Your task to perform on an android device: move an email to a new category in the gmail app Image 0: 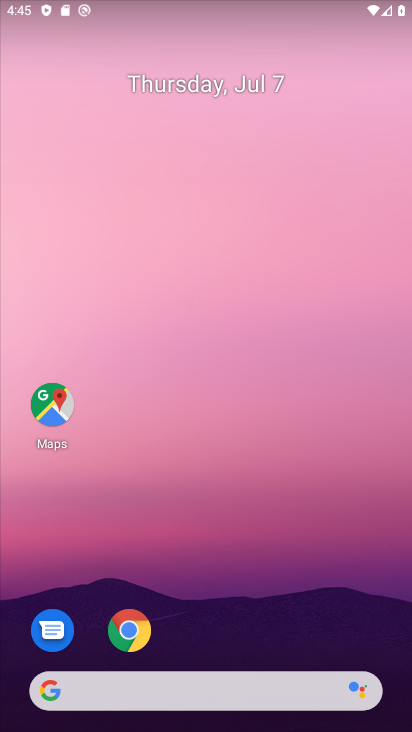
Step 0: drag from (258, 637) to (215, 221)
Your task to perform on an android device: move an email to a new category in the gmail app Image 1: 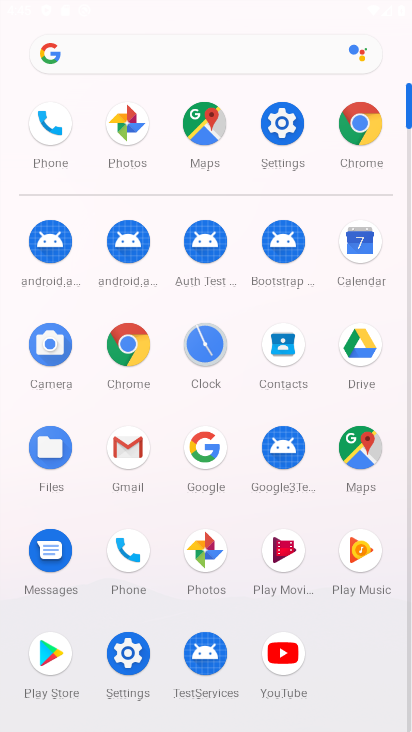
Step 1: click (119, 447)
Your task to perform on an android device: move an email to a new category in the gmail app Image 2: 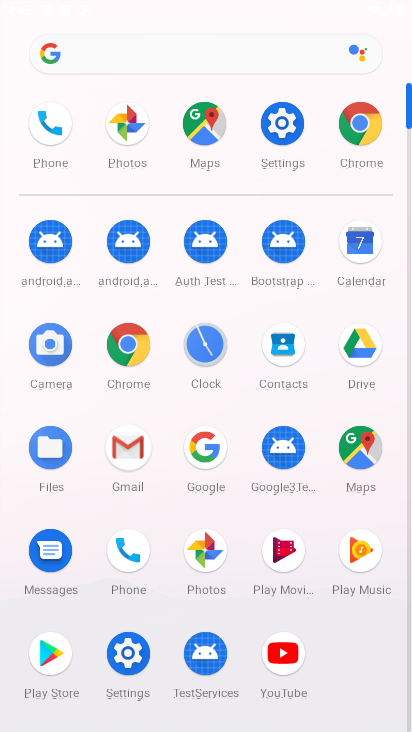
Step 2: click (131, 440)
Your task to perform on an android device: move an email to a new category in the gmail app Image 3: 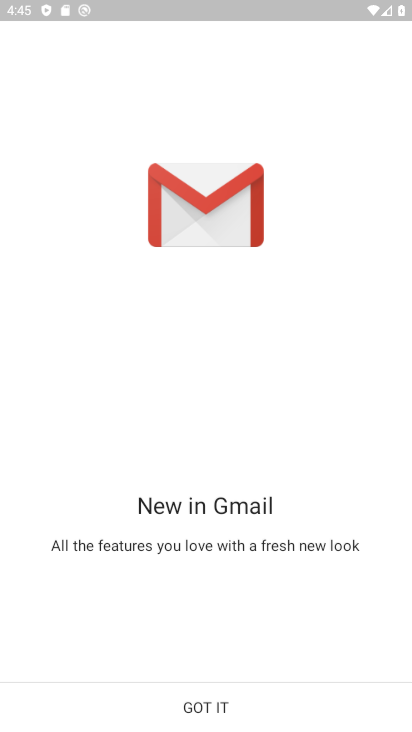
Step 3: click (131, 440)
Your task to perform on an android device: move an email to a new category in the gmail app Image 4: 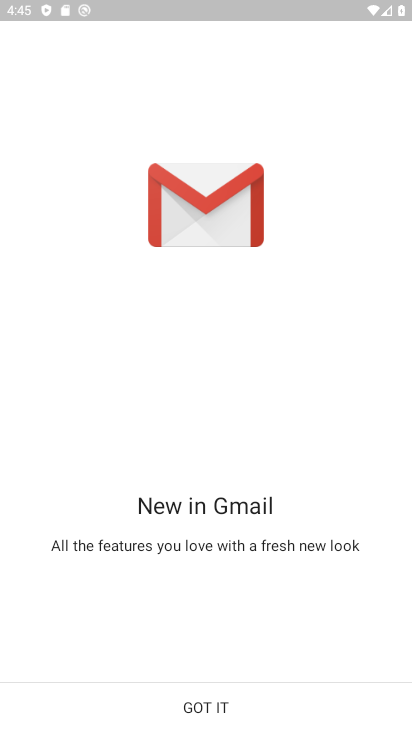
Step 4: click (132, 440)
Your task to perform on an android device: move an email to a new category in the gmail app Image 5: 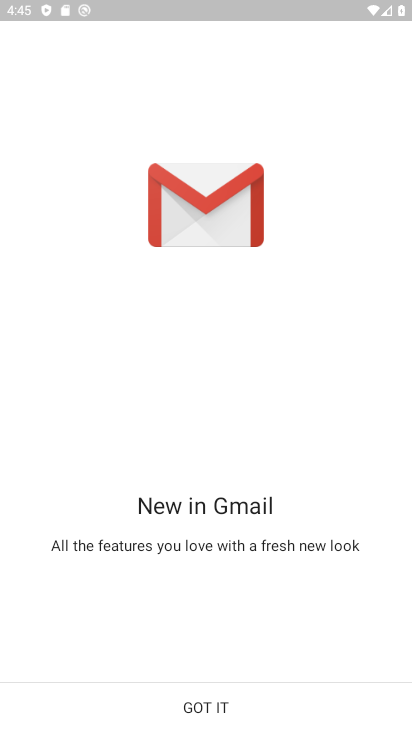
Step 5: click (206, 702)
Your task to perform on an android device: move an email to a new category in the gmail app Image 6: 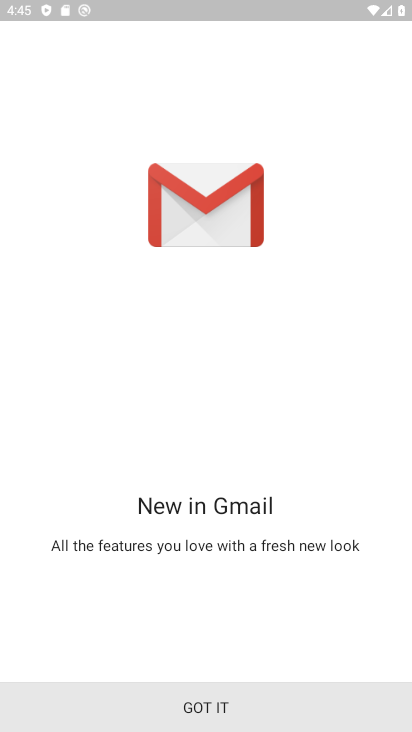
Step 6: click (207, 702)
Your task to perform on an android device: move an email to a new category in the gmail app Image 7: 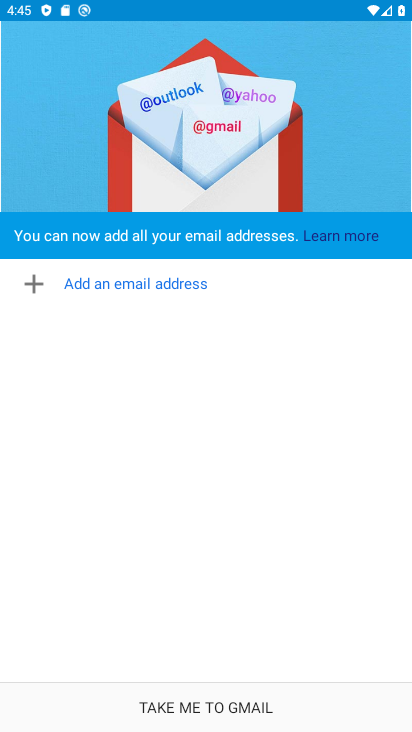
Step 7: click (218, 710)
Your task to perform on an android device: move an email to a new category in the gmail app Image 8: 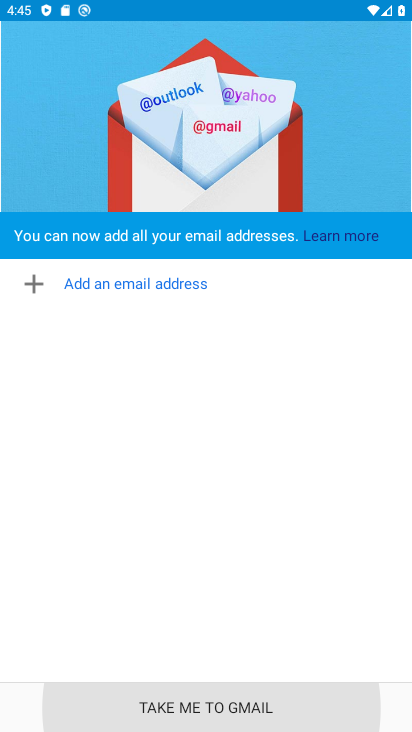
Step 8: click (218, 710)
Your task to perform on an android device: move an email to a new category in the gmail app Image 9: 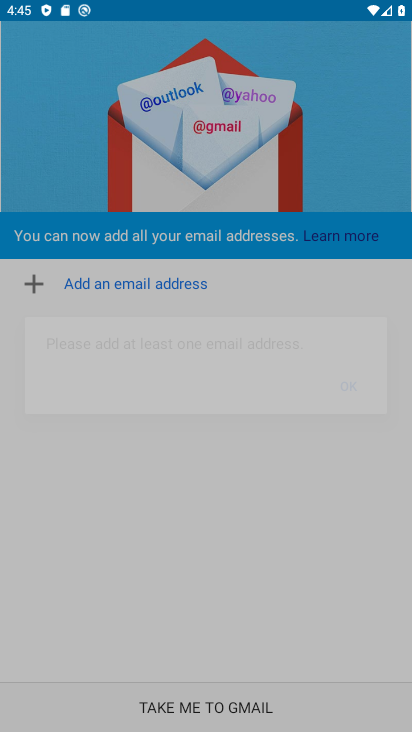
Step 9: click (224, 705)
Your task to perform on an android device: move an email to a new category in the gmail app Image 10: 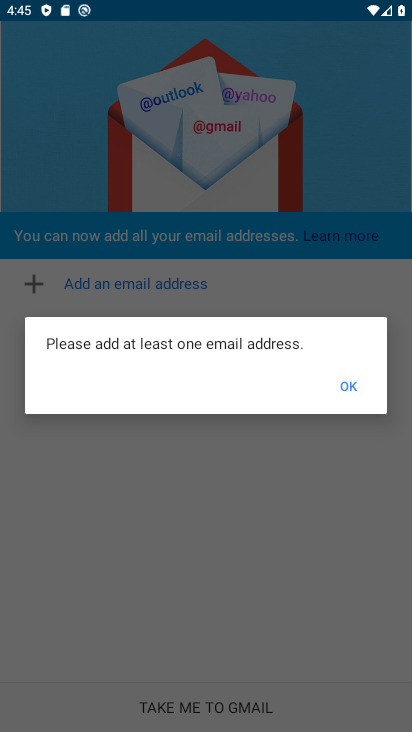
Step 10: click (355, 375)
Your task to perform on an android device: move an email to a new category in the gmail app Image 11: 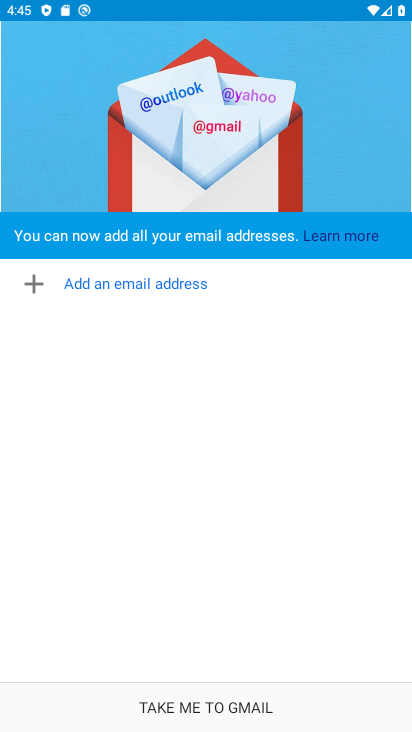
Step 11: click (197, 699)
Your task to perform on an android device: move an email to a new category in the gmail app Image 12: 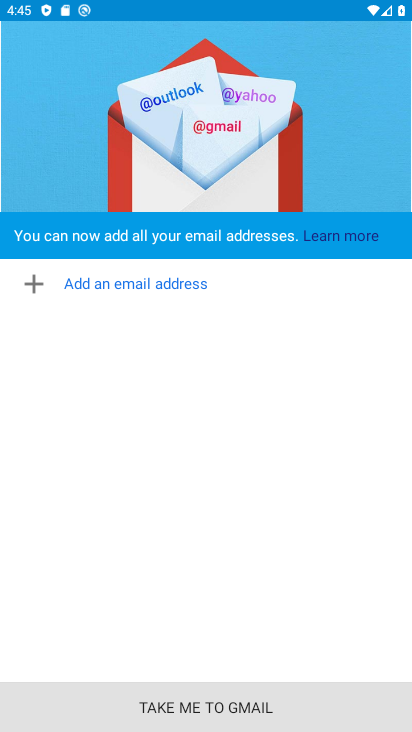
Step 12: click (199, 714)
Your task to perform on an android device: move an email to a new category in the gmail app Image 13: 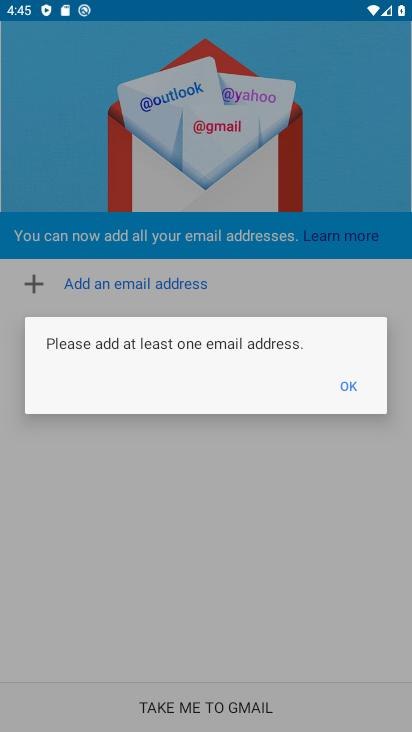
Step 13: click (205, 713)
Your task to perform on an android device: move an email to a new category in the gmail app Image 14: 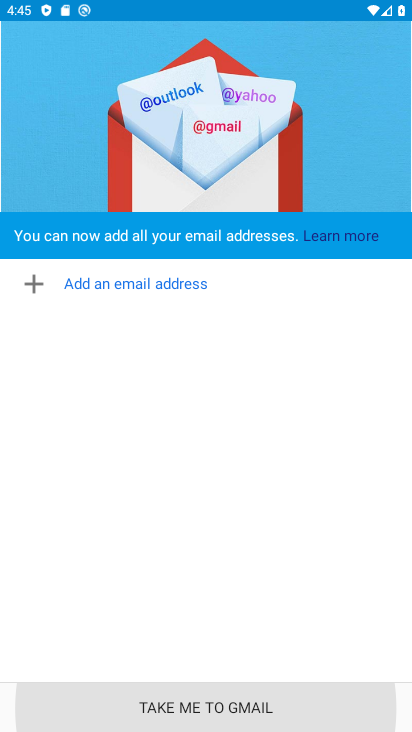
Step 14: click (206, 711)
Your task to perform on an android device: move an email to a new category in the gmail app Image 15: 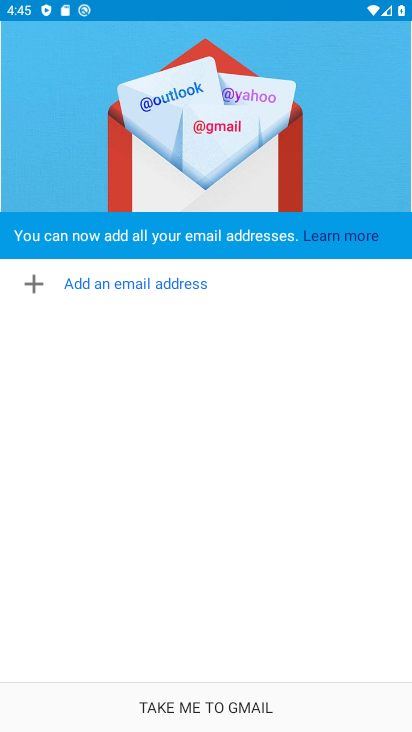
Step 15: click (223, 707)
Your task to perform on an android device: move an email to a new category in the gmail app Image 16: 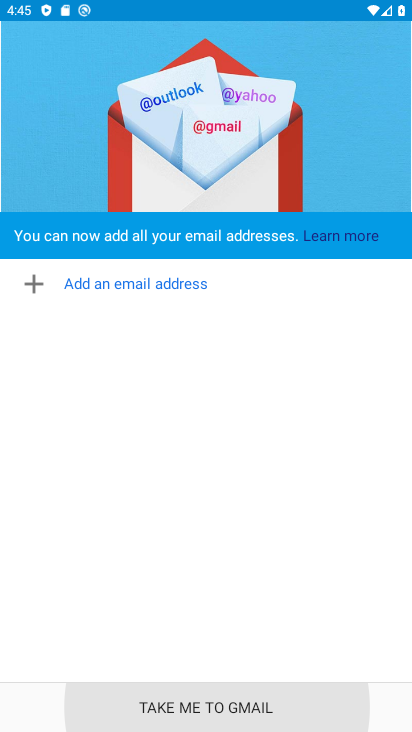
Step 16: click (226, 705)
Your task to perform on an android device: move an email to a new category in the gmail app Image 17: 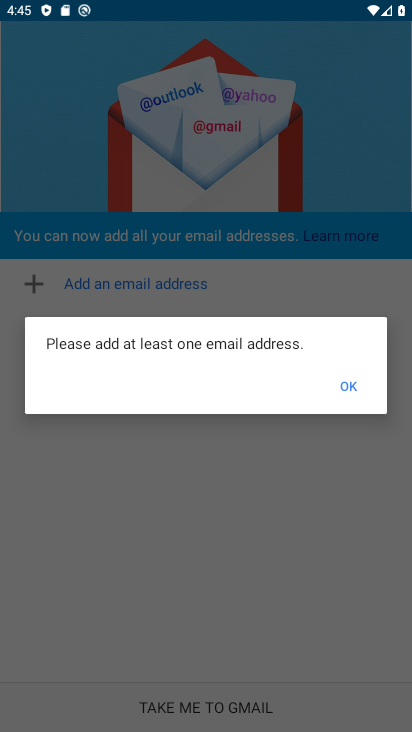
Step 17: click (355, 386)
Your task to perform on an android device: move an email to a new category in the gmail app Image 18: 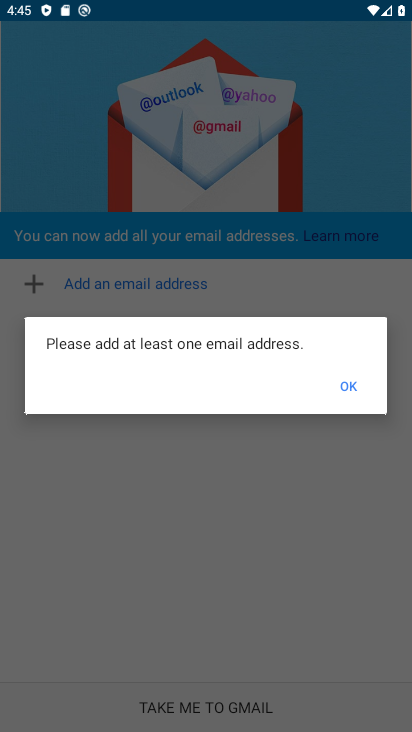
Step 18: click (355, 386)
Your task to perform on an android device: move an email to a new category in the gmail app Image 19: 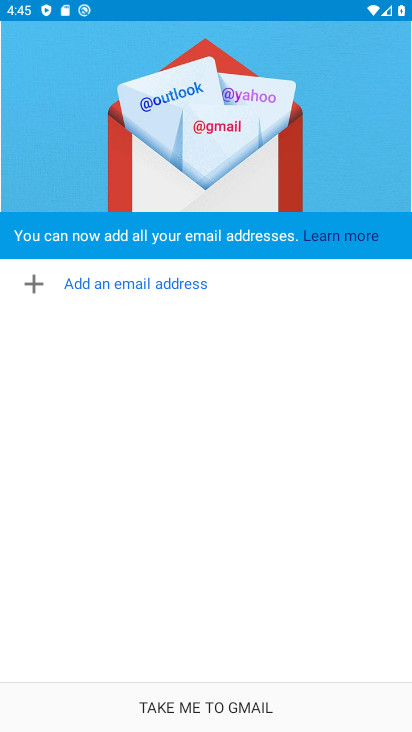
Step 19: click (215, 717)
Your task to perform on an android device: move an email to a new category in the gmail app Image 20: 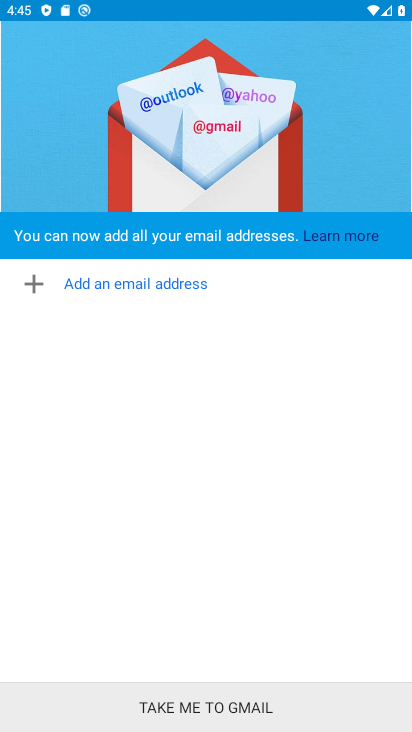
Step 20: click (213, 704)
Your task to perform on an android device: move an email to a new category in the gmail app Image 21: 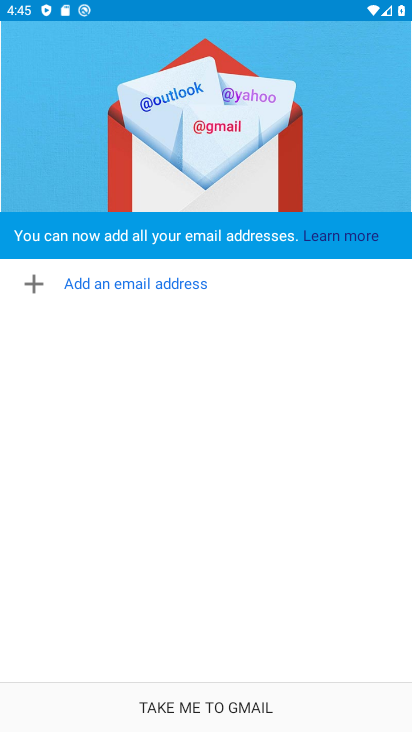
Step 21: click (208, 702)
Your task to perform on an android device: move an email to a new category in the gmail app Image 22: 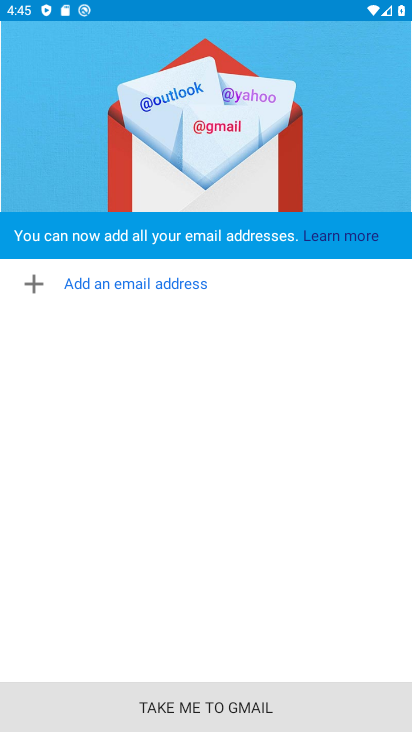
Step 22: click (210, 699)
Your task to perform on an android device: move an email to a new category in the gmail app Image 23: 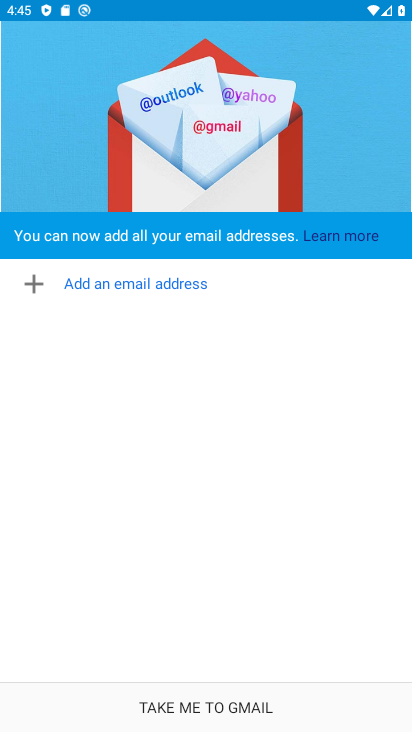
Step 23: click (217, 701)
Your task to perform on an android device: move an email to a new category in the gmail app Image 24: 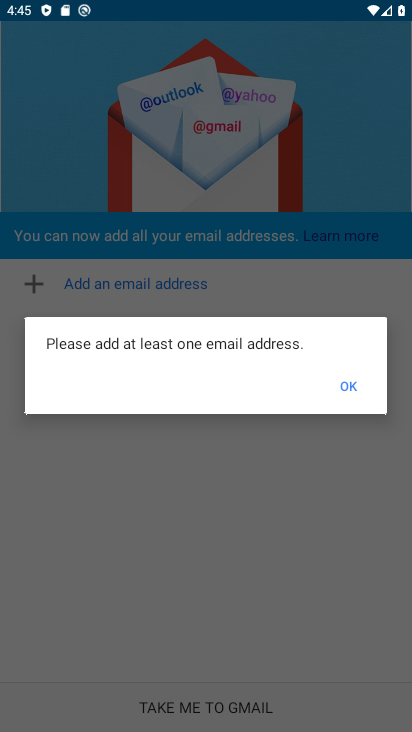
Step 24: click (352, 406)
Your task to perform on an android device: move an email to a new category in the gmail app Image 25: 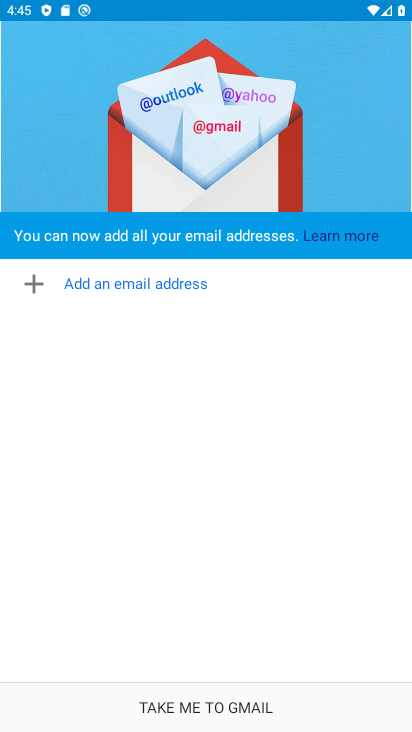
Step 25: click (347, 371)
Your task to perform on an android device: move an email to a new category in the gmail app Image 26: 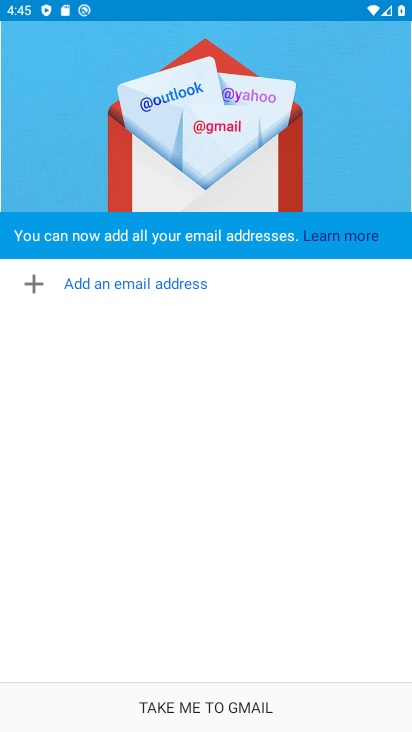
Step 26: click (347, 371)
Your task to perform on an android device: move an email to a new category in the gmail app Image 27: 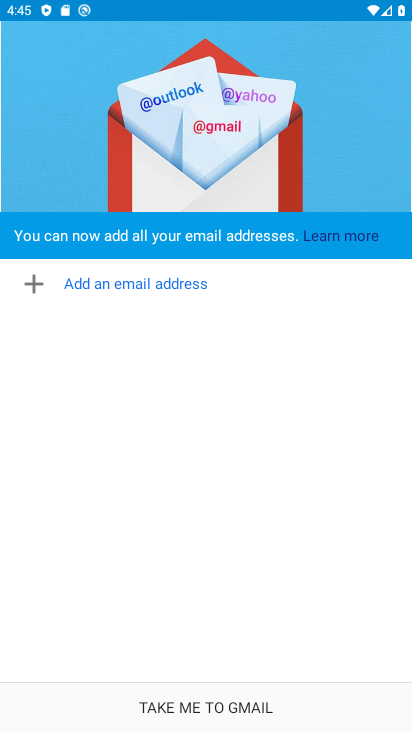
Step 27: drag from (221, 673) to (222, 718)
Your task to perform on an android device: move an email to a new category in the gmail app Image 28: 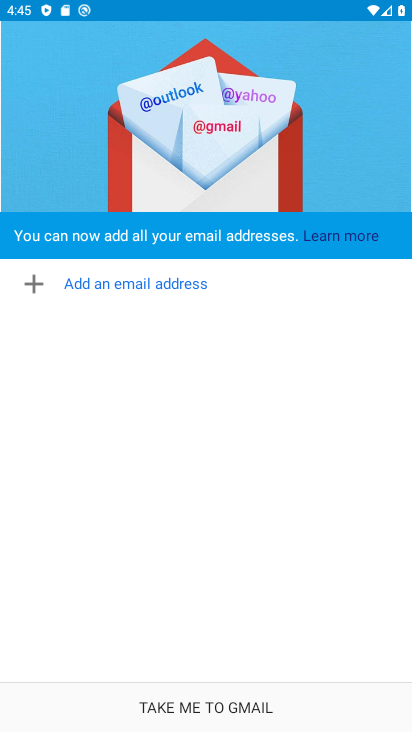
Step 28: click (222, 722)
Your task to perform on an android device: move an email to a new category in the gmail app Image 29: 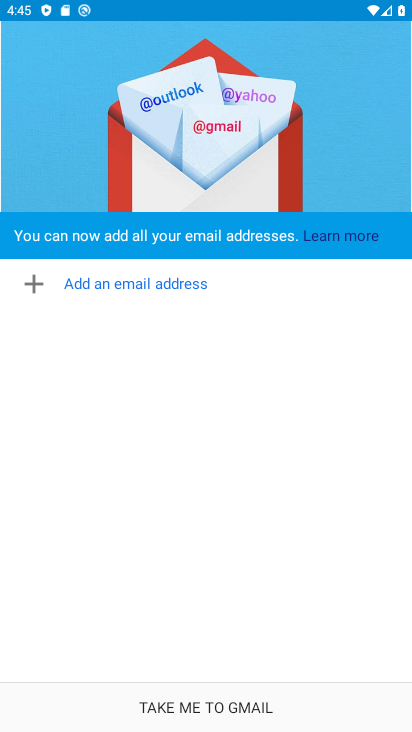
Step 29: click (222, 722)
Your task to perform on an android device: move an email to a new category in the gmail app Image 30: 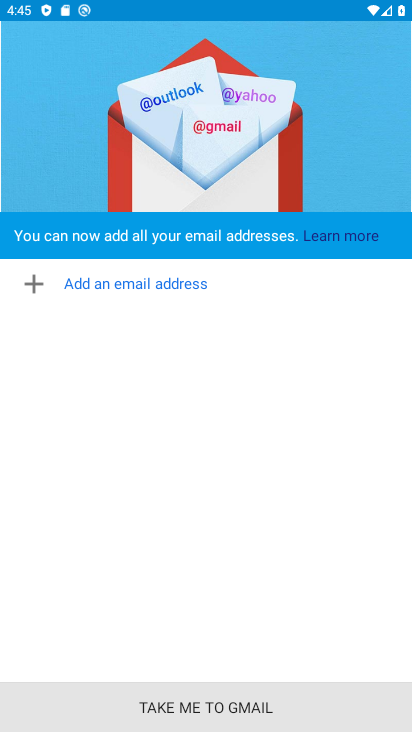
Step 30: click (229, 716)
Your task to perform on an android device: move an email to a new category in the gmail app Image 31: 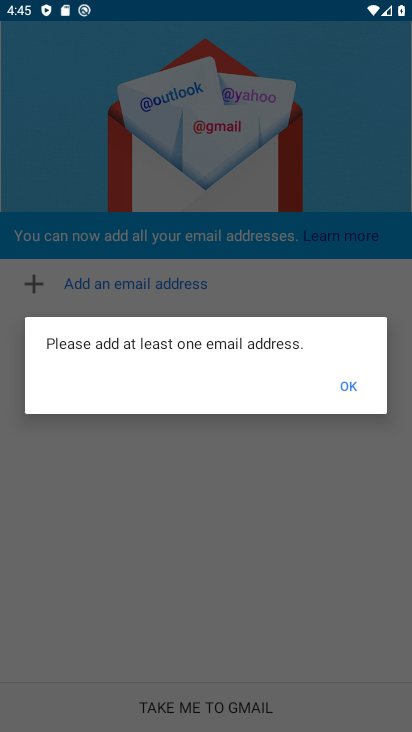
Step 31: click (232, 714)
Your task to perform on an android device: move an email to a new category in the gmail app Image 32: 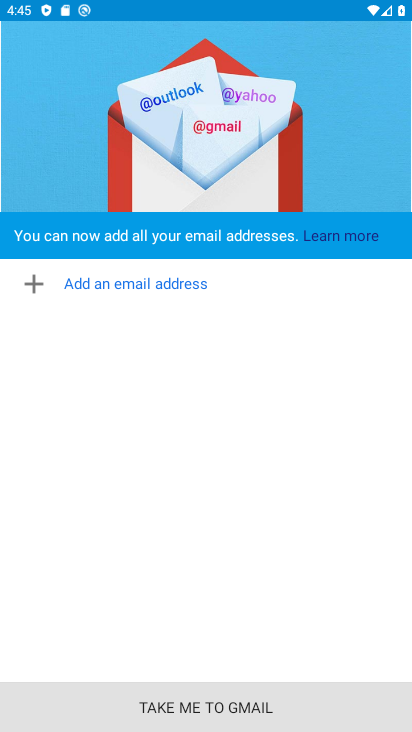
Step 32: click (248, 709)
Your task to perform on an android device: move an email to a new category in the gmail app Image 33: 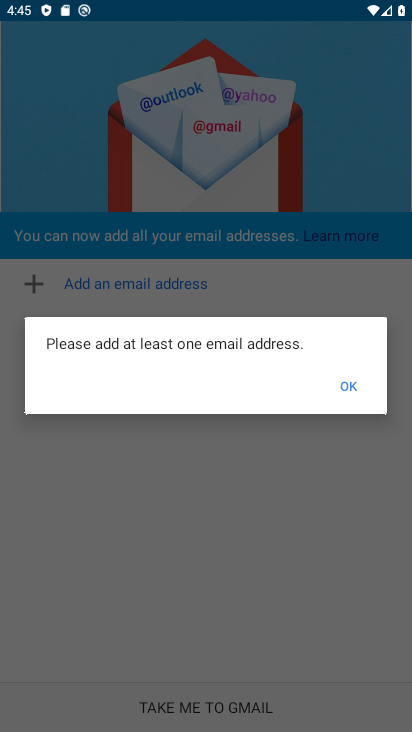
Step 33: task complete